Your task to perform on an android device: see tabs open on other devices in the chrome app Image 0: 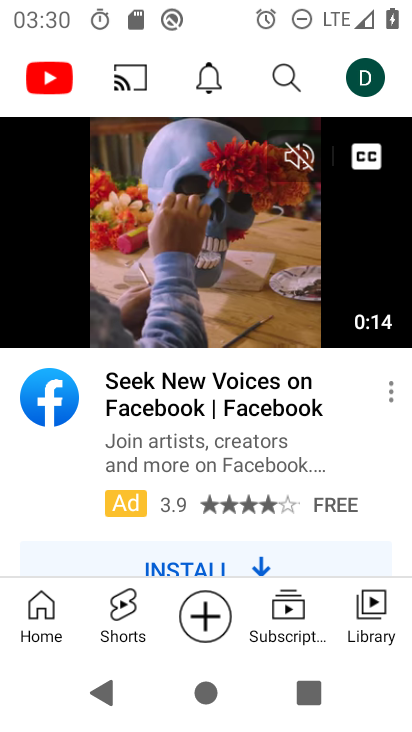
Step 0: press home button
Your task to perform on an android device: see tabs open on other devices in the chrome app Image 1: 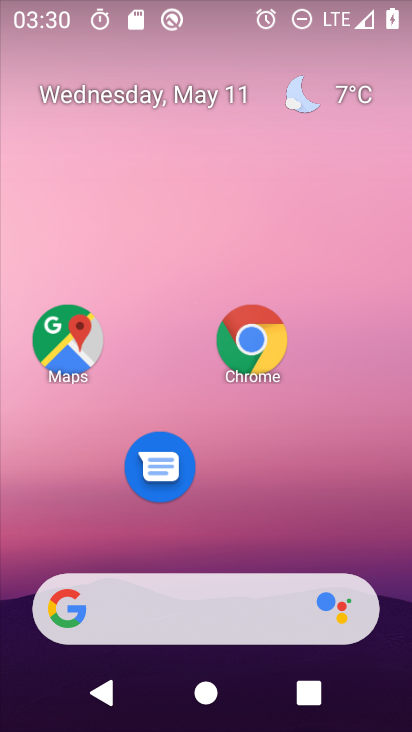
Step 1: drag from (213, 628) to (263, 305)
Your task to perform on an android device: see tabs open on other devices in the chrome app Image 2: 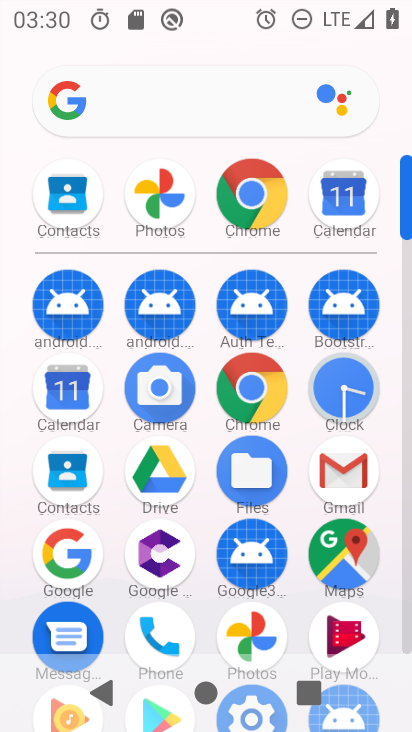
Step 2: click (261, 212)
Your task to perform on an android device: see tabs open on other devices in the chrome app Image 3: 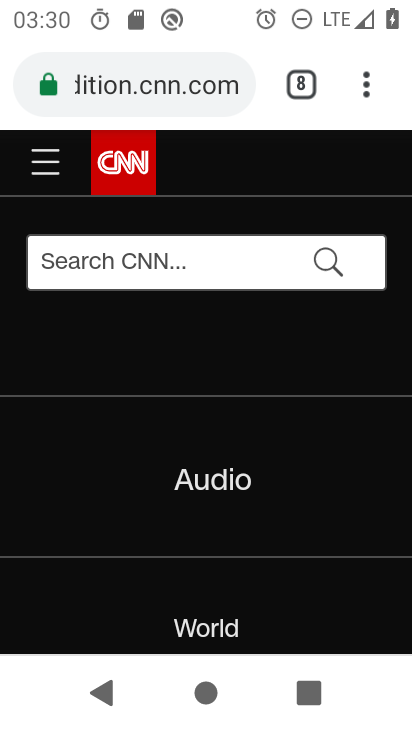
Step 3: task complete